Your task to perform on an android device: turn off location history Image 0: 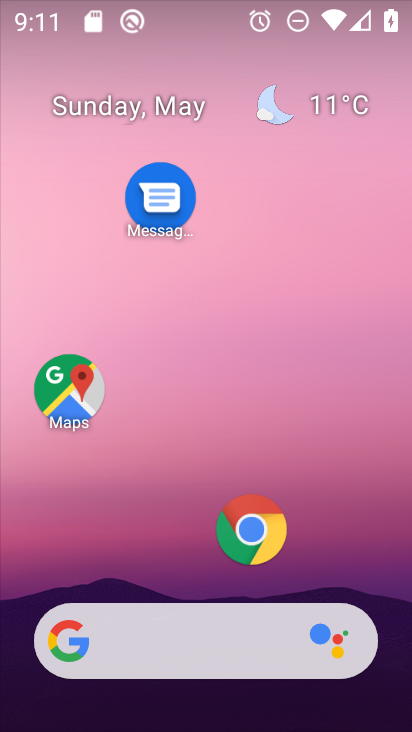
Step 0: drag from (192, 565) to (236, 161)
Your task to perform on an android device: turn off location history Image 1: 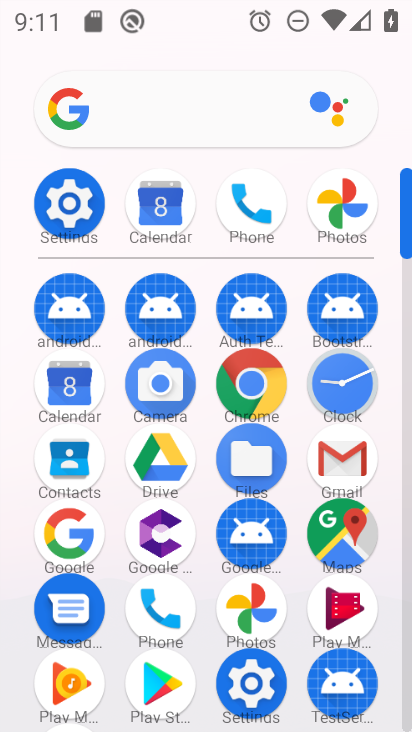
Step 1: click (249, 684)
Your task to perform on an android device: turn off location history Image 2: 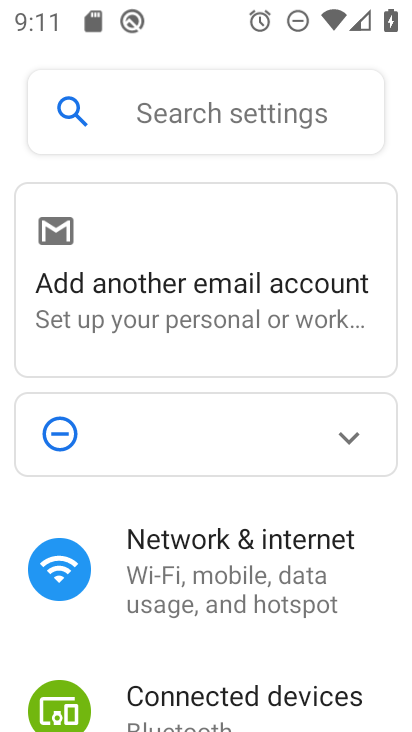
Step 2: drag from (244, 666) to (259, 130)
Your task to perform on an android device: turn off location history Image 3: 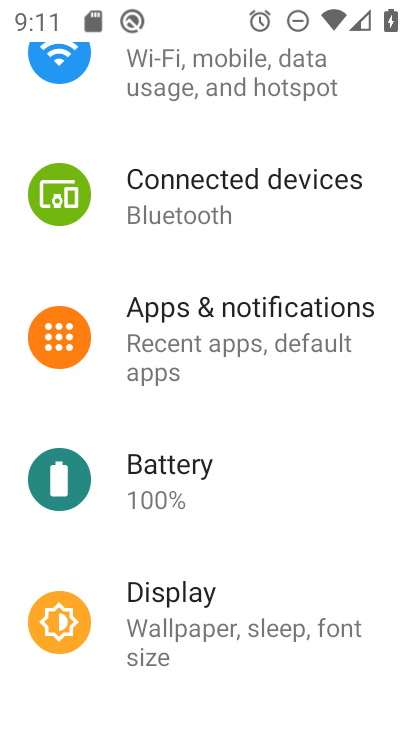
Step 3: drag from (218, 648) to (280, 124)
Your task to perform on an android device: turn off location history Image 4: 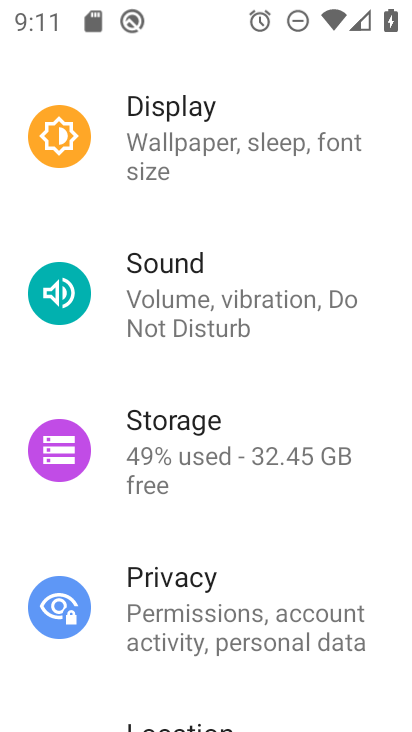
Step 4: drag from (219, 643) to (268, 215)
Your task to perform on an android device: turn off location history Image 5: 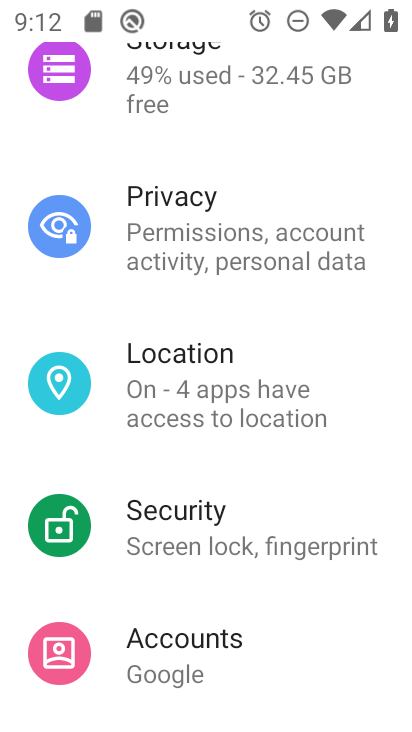
Step 5: click (250, 364)
Your task to perform on an android device: turn off location history Image 6: 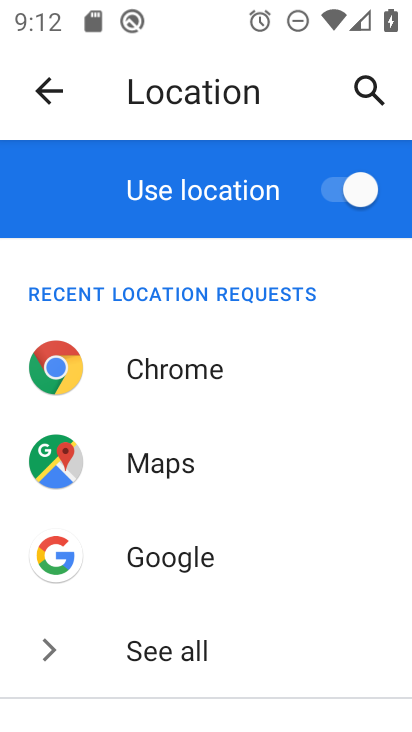
Step 6: drag from (220, 661) to (272, 161)
Your task to perform on an android device: turn off location history Image 7: 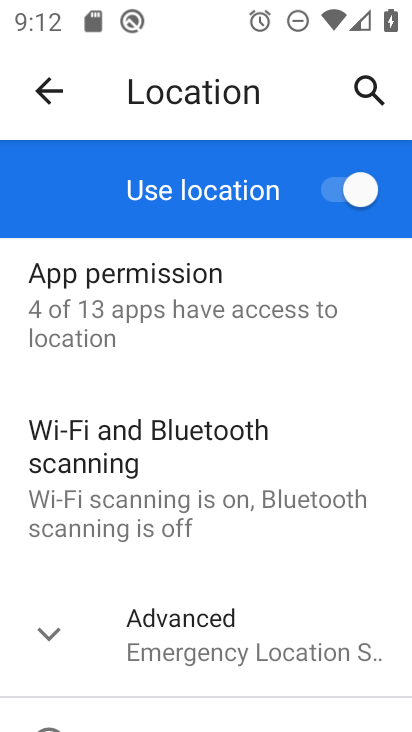
Step 7: click (40, 635)
Your task to perform on an android device: turn off location history Image 8: 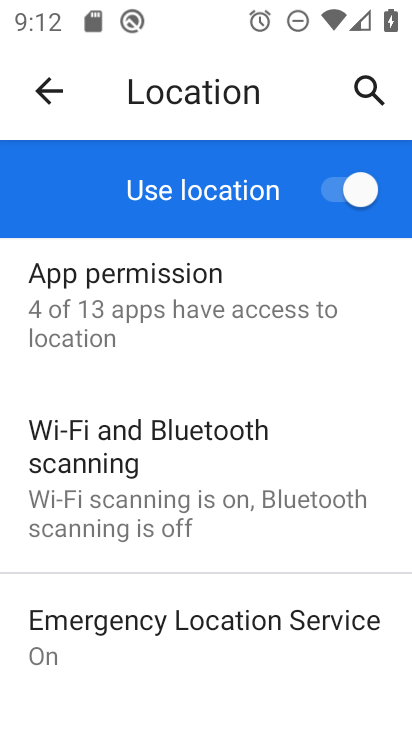
Step 8: drag from (178, 644) to (205, 144)
Your task to perform on an android device: turn off location history Image 9: 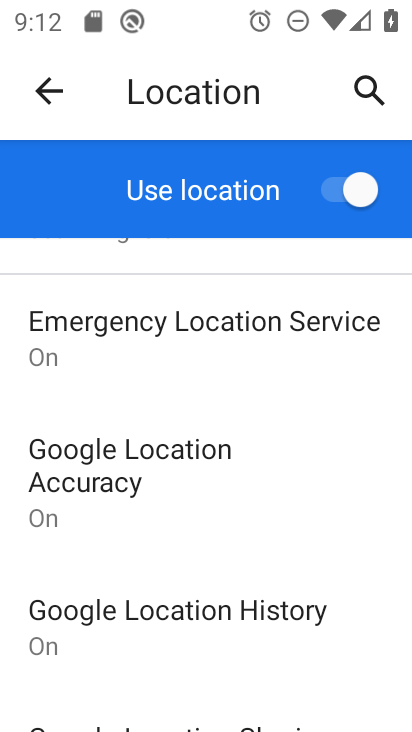
Step 9: click (169, 632)
Your task to perform on an android device: turn off location history Image 10: 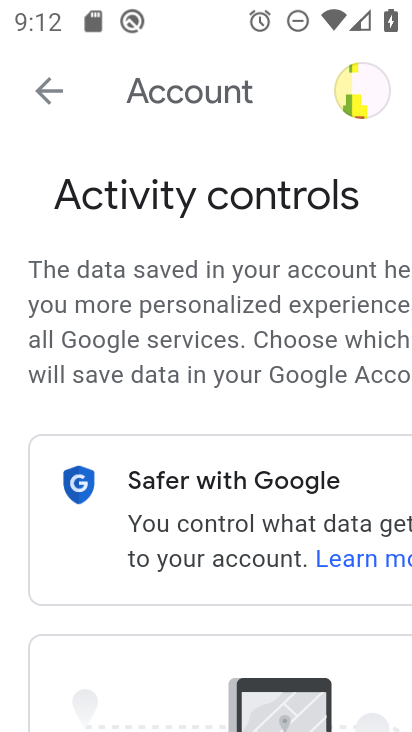
Step 10: task complete